Your task to perform on an android device: Go to sound settings Image 0: 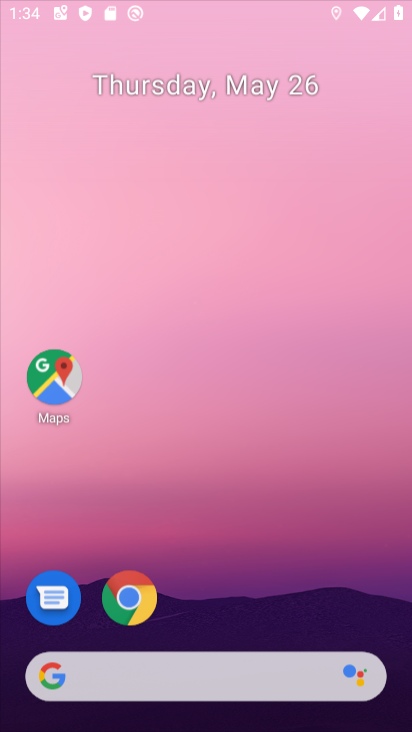
Step 0: click (150, 598)
Your task to perform on an android device: Go to sound settings Image 1: 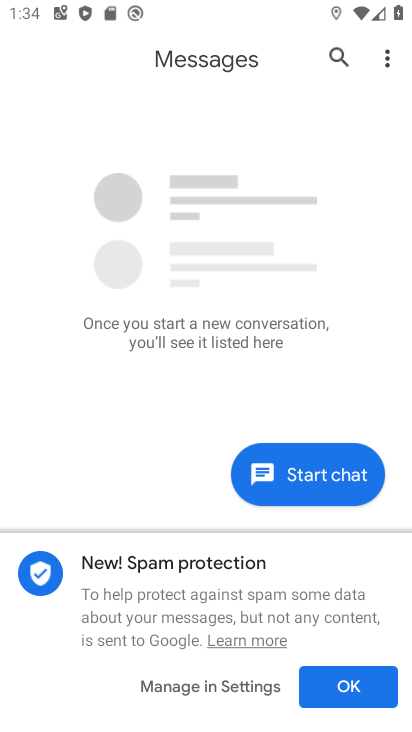
Step 1: press back button
Your task to perform on an android device: Go to sound settings Image 2: 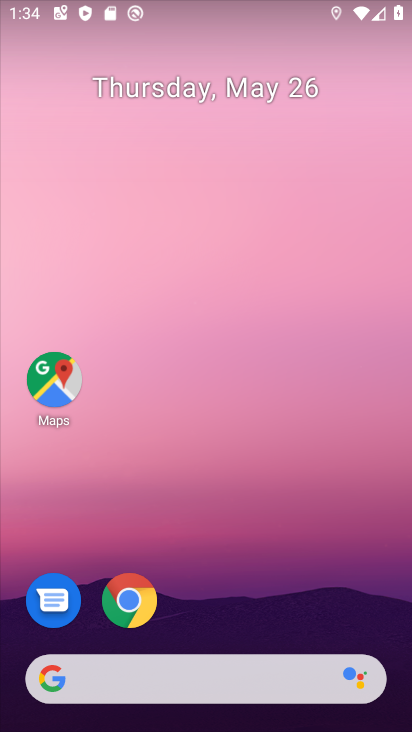
Step 2: click (132, 590)
Your task to perform on an android device: Go to sound settings Image 3: 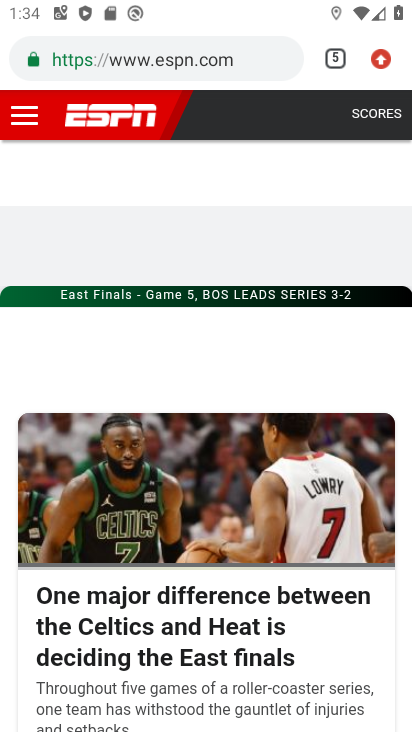
Step 3: click (328, 47)
Your task to perform on an android device: Go to sound settings Image 4: 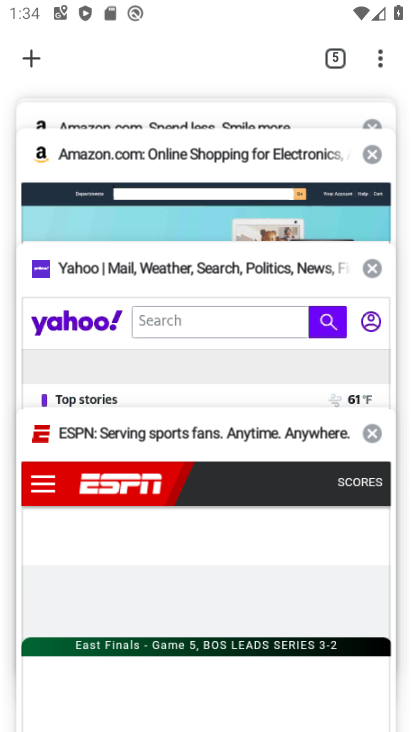
Step 4: press home button
Your task to perform on an android device: Go to sound settings Image 5: 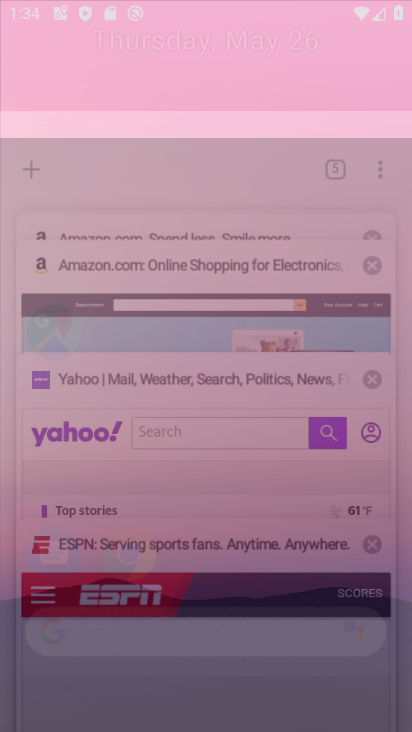
Step 5: press home button
Your task to perform on an android device: Go to sound settings Image 6: 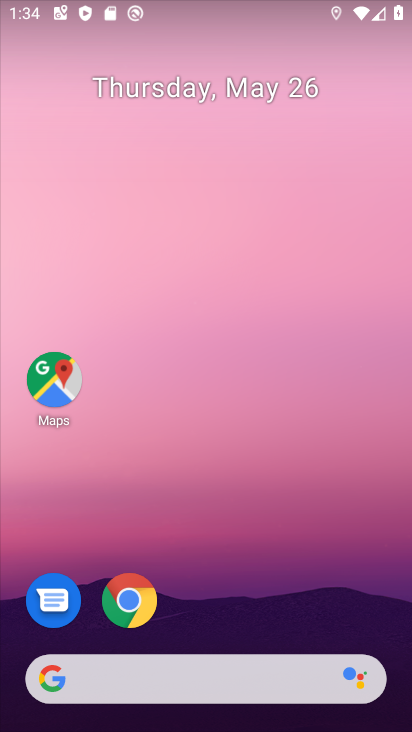
Step 6: drag from (189, 488) to (241, 82)
Your task to perform on an android device: Go to sound settings Image 7: 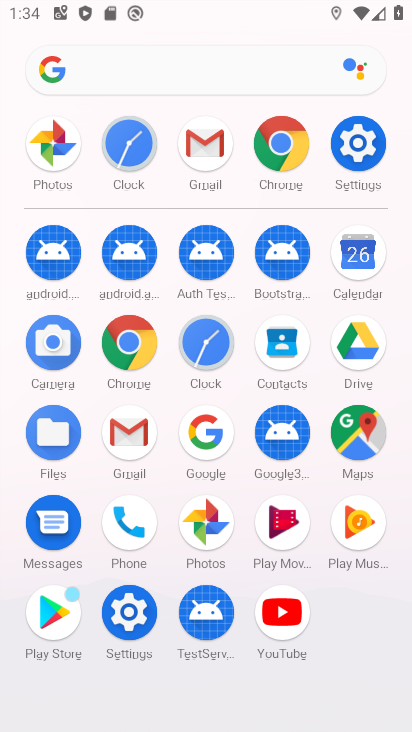
Step 7: click (356, 138)
Your task to perform on an android device: Go to sound settings Image 8: 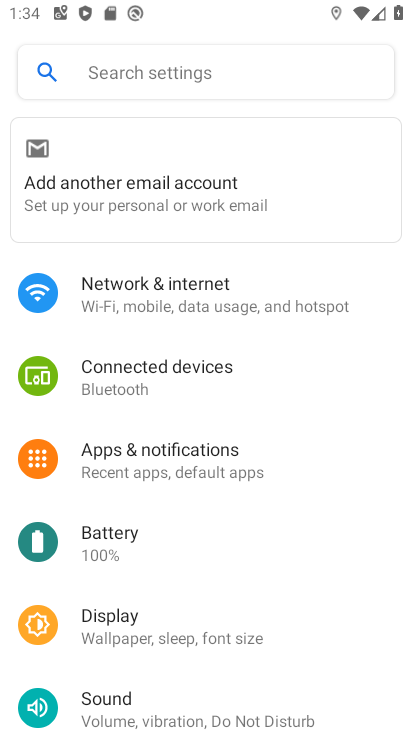
Step 8: click (111, 663)
Your task to perform on an android device: Go to sound settings Image 9: 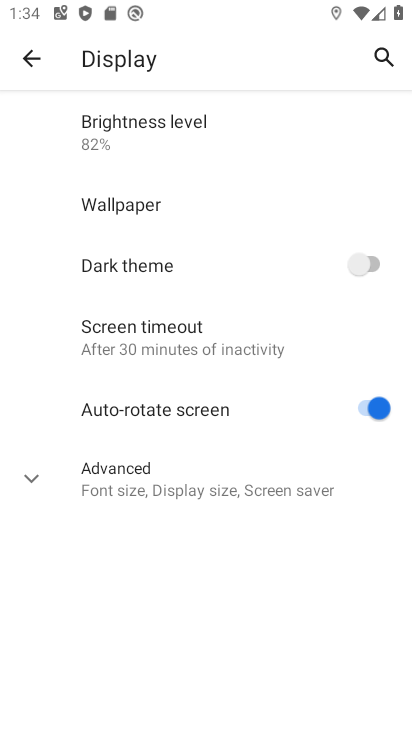
Step 9: press back button
Your task to perform on an android device: Go to sound settings Image 10: 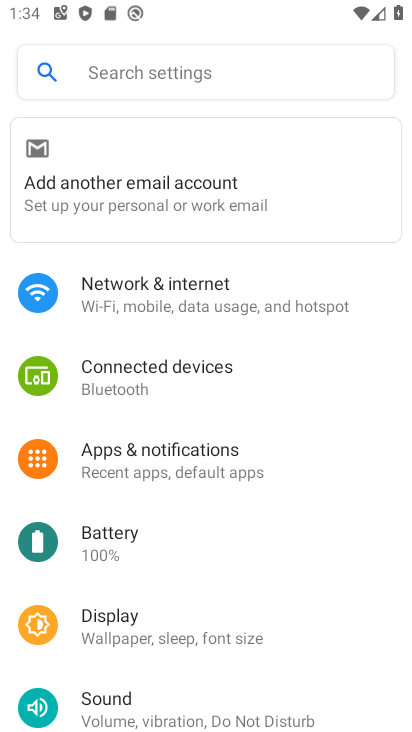
Step 10: click (84, 699)
Your task to perform on an android device: Go to sound settings Image 11: 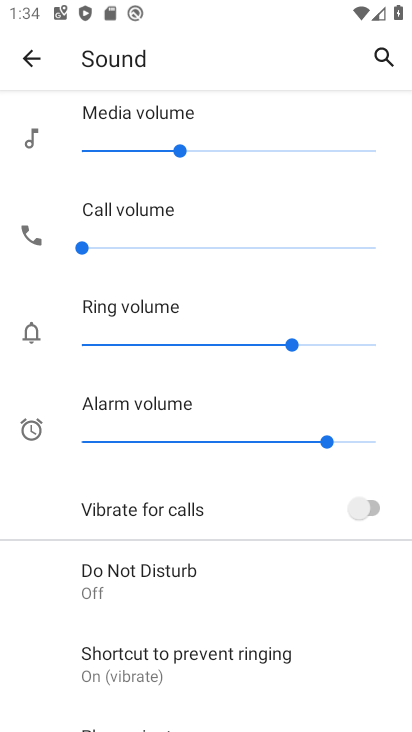
Step 11: task complete